Your task to perform on an android device: Open Wikipedia Image 0: 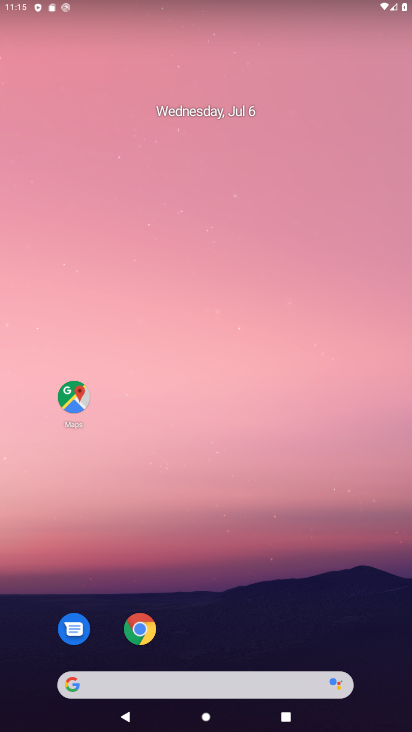
Step 0: click (138, 630)
Your task to perform on an android device: Open Wikipedia Image 1: 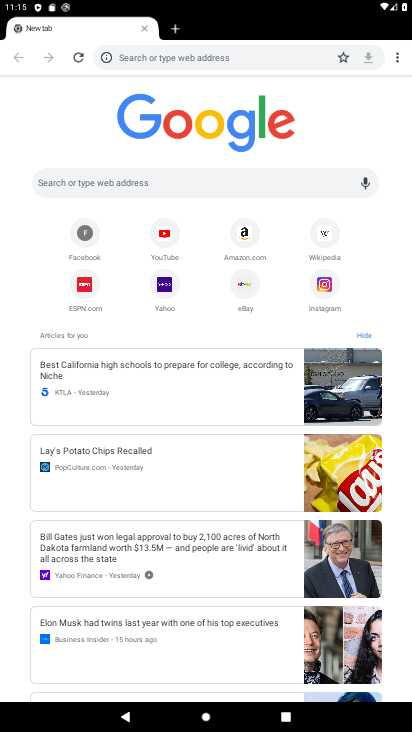
Step 1: click (326, 232)
Your task to perform on an android device: Open Wikipedia Image 2: 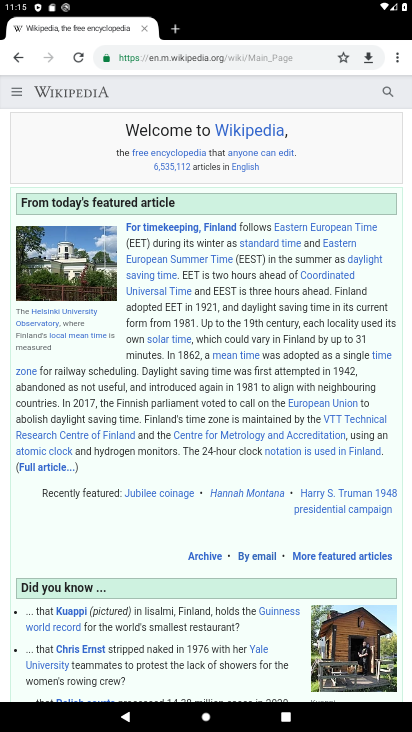
Step 2: task complete